Your task to perform on an android device: visit the assistant section in the google photos Image 0: 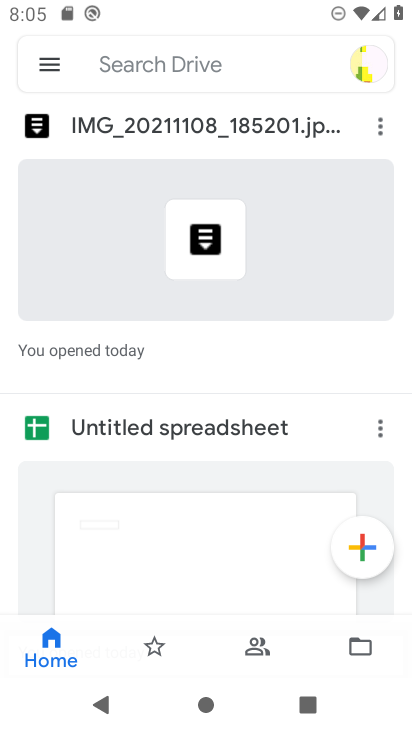
Step 0: press home button
Your task to perform on an android device: visit the assistant section in the google photos Image 1: 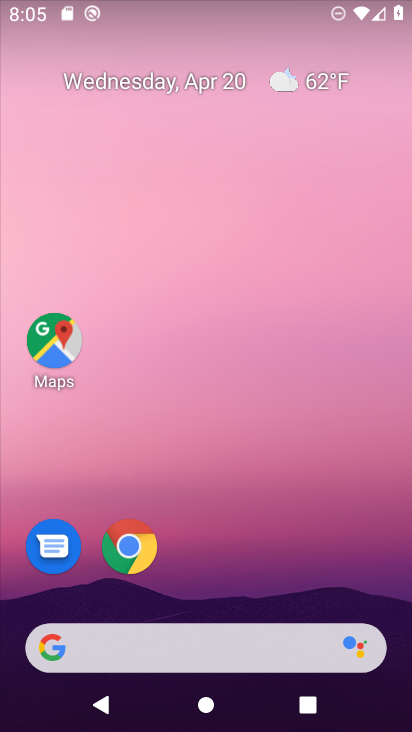
Step 1: drag from (259, 563) to (220, 77)
Your task to perform on an android device: visit the assistant section in the google photos Image 2: 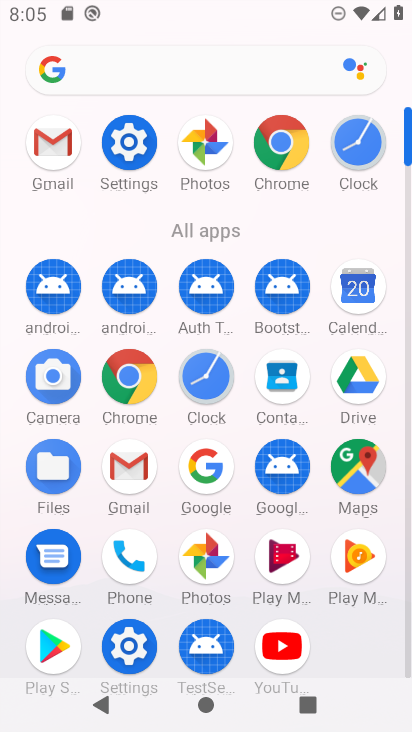
Step 2: click (214, 146)
Your task to perform on an android device: visit the assistant section in the google photos Image 3: 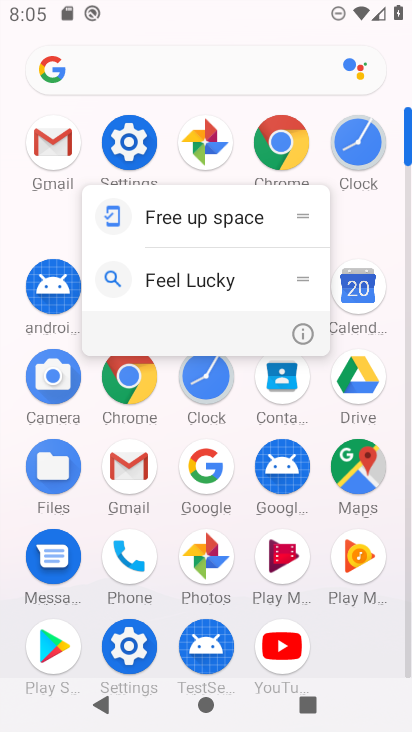
Step 3: click (212, 134)
Your task to perform on an android device: visit the assistant section in the google photos Image 4: 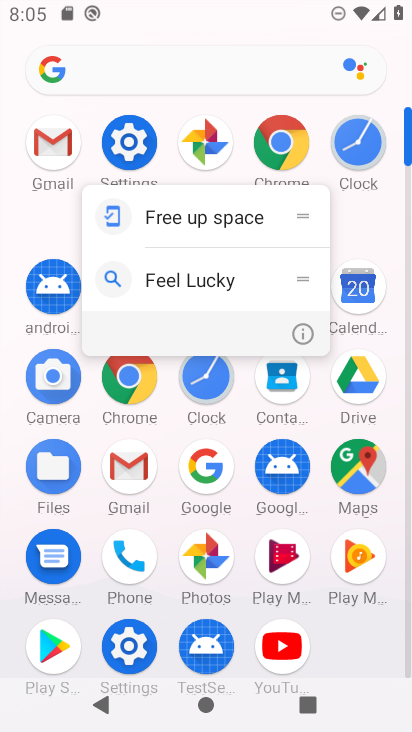
Step 4: click (212, 134)
Your task to perform on an android device: visit the assistant section in the google photos Image 5: 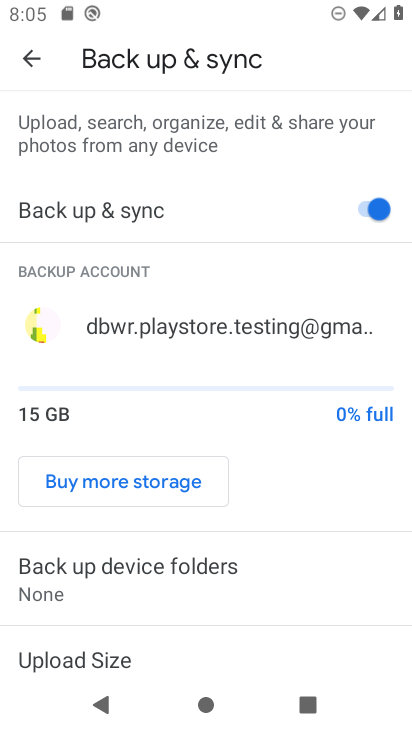
Step 5: click (35, 52)
Your task to perform on an android device: visit the assistant section in the google photos Image 6: 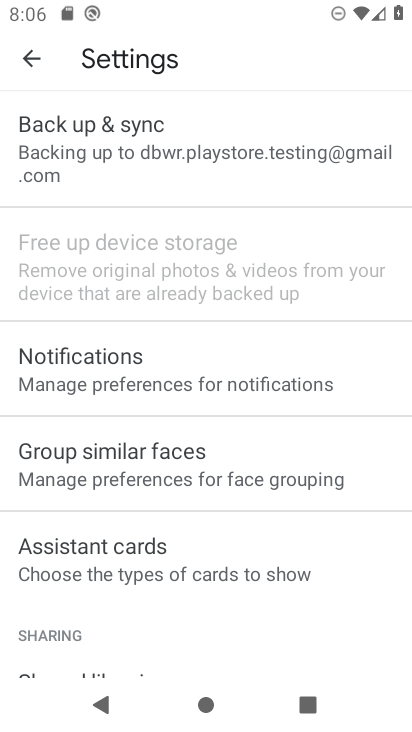
Step 6: click (35, 52)
Your task to perform on an android device: visit the assistant section in the google photos Image 7: 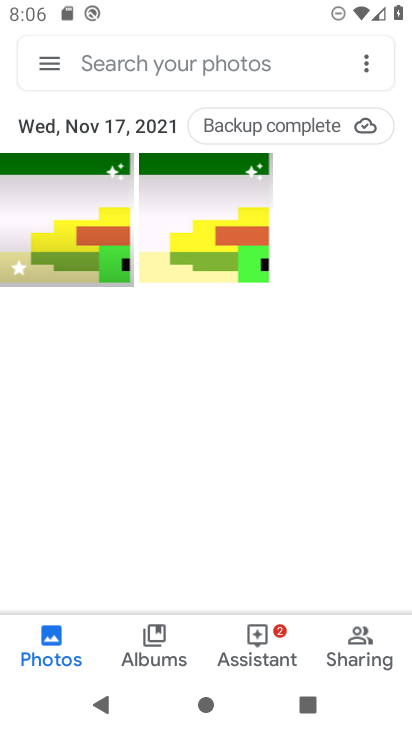
Step 7: click (260, 636)
Your task to perform on an android device: visit the assistant section in the google photos Image 8: 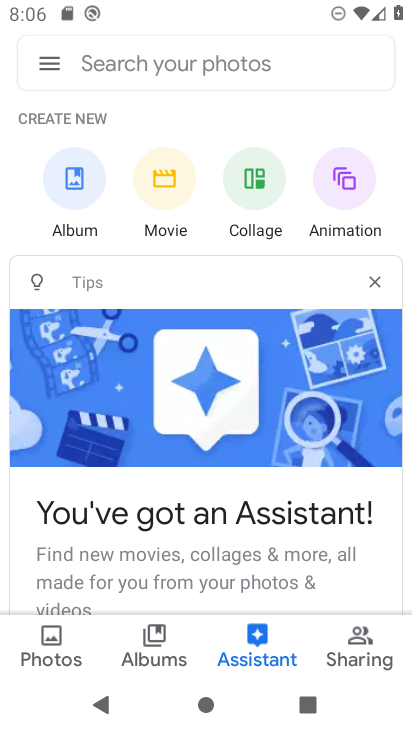
Step 8: task complete